Your task to perform on an android device: Go to Wikipedia Image 0: 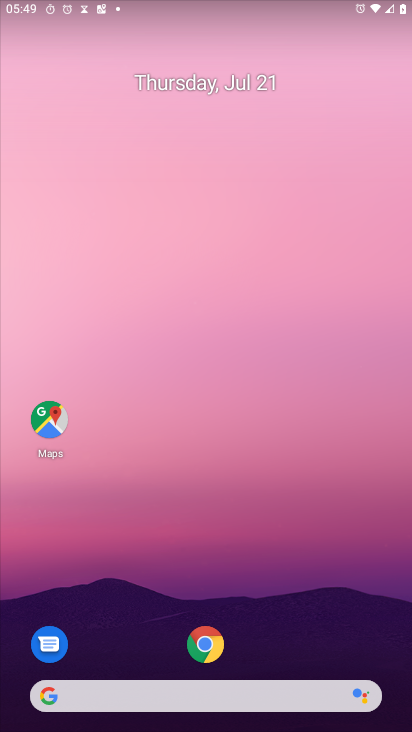
Step 0: press home button
Your task to perform on an android device: Go to Wikipedia Image 1: 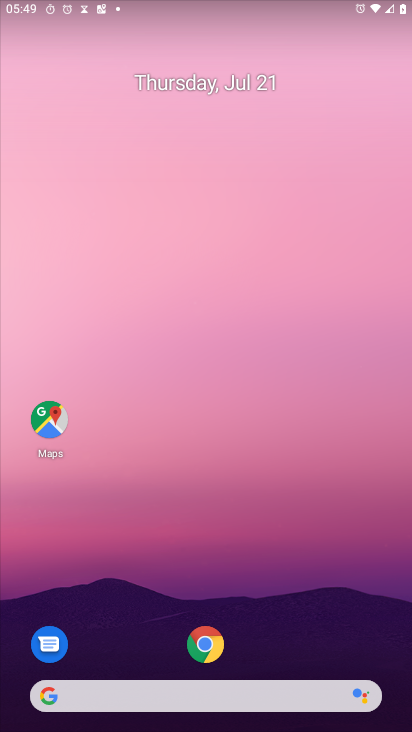
Step 1: click (56, 686)
Your task to perform on an android device: Go to Wikipedia Image 2: 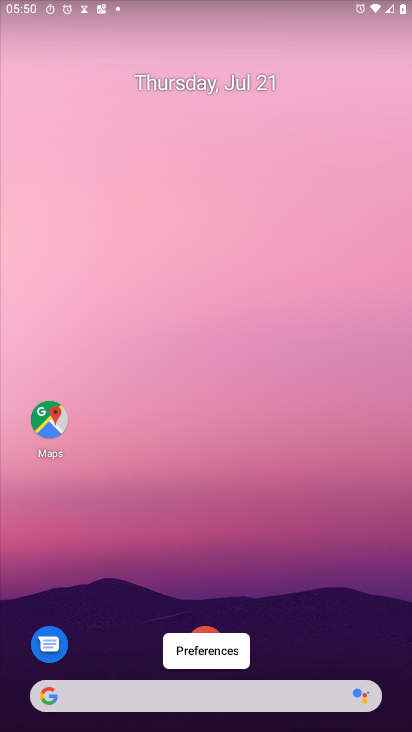
Step 2: click (49, 698)
Your task to perform on an android device: Go to Wikipedia Image 3: 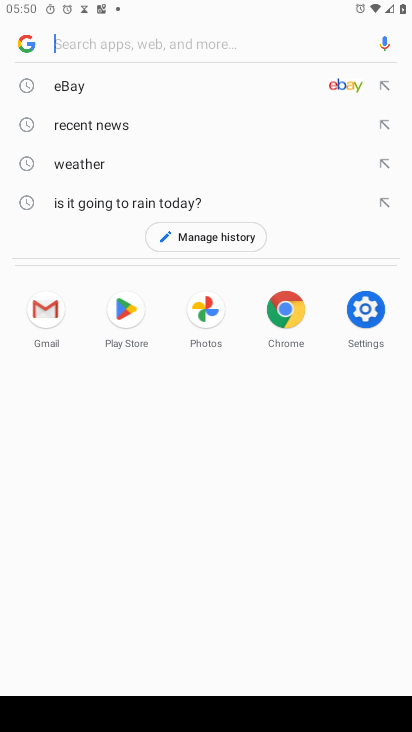
Step 3: click (140, 37)
Your task to perform on an android device: Go to Wikipedia Image 4: 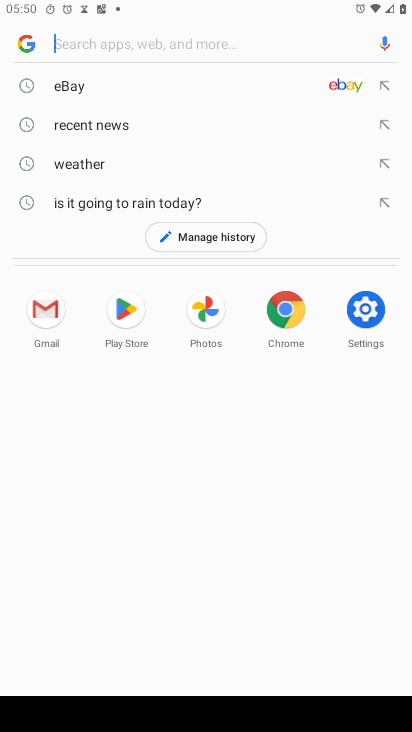
Step 4: type "Wikipedia"
Your task to perform on an android device: Go to Wikipedia Image 5: 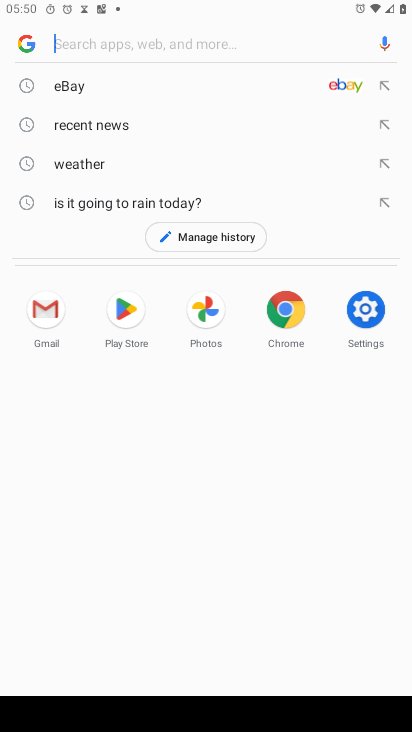
Step 5: click (86, 35)
Your task to perform on an android device: Go to Wikipedia Image 6: 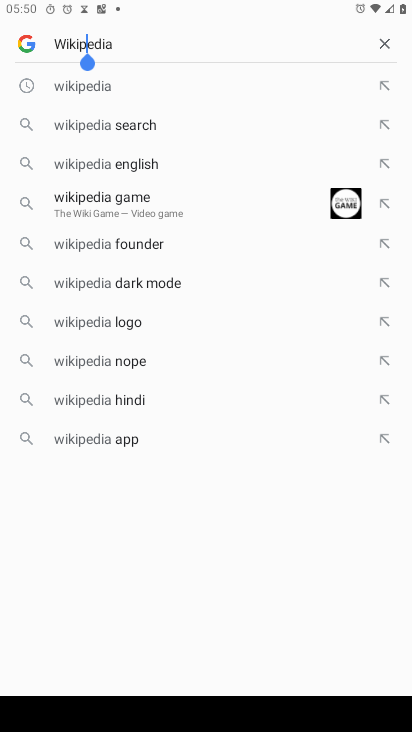
Step 6: press enter
Your task to perform on an android device: Go to Wikipedia Image 7: 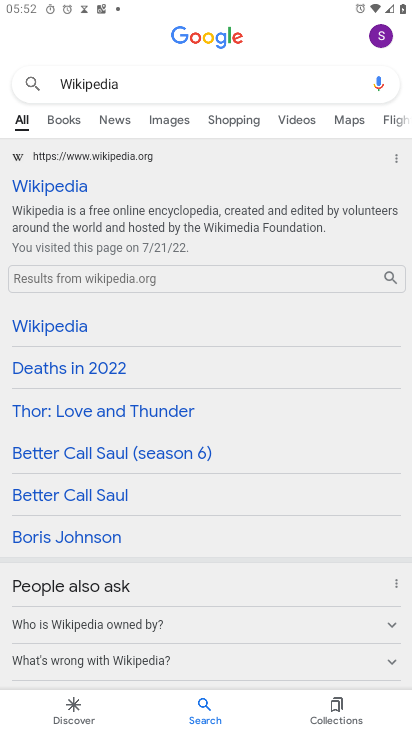
Step 7: click (42, 184)
Your task to perform on an android device: Go to Wikipedia Image 8: 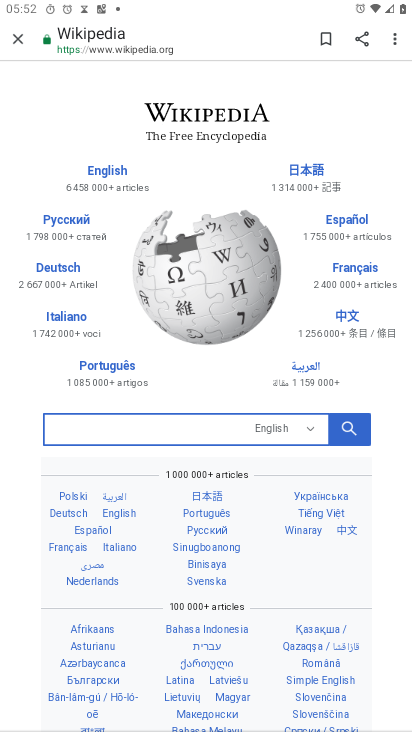
Step 8: task complete